Your task to perform on an android device: allow notifications from all sites in the chrome app Image 0: 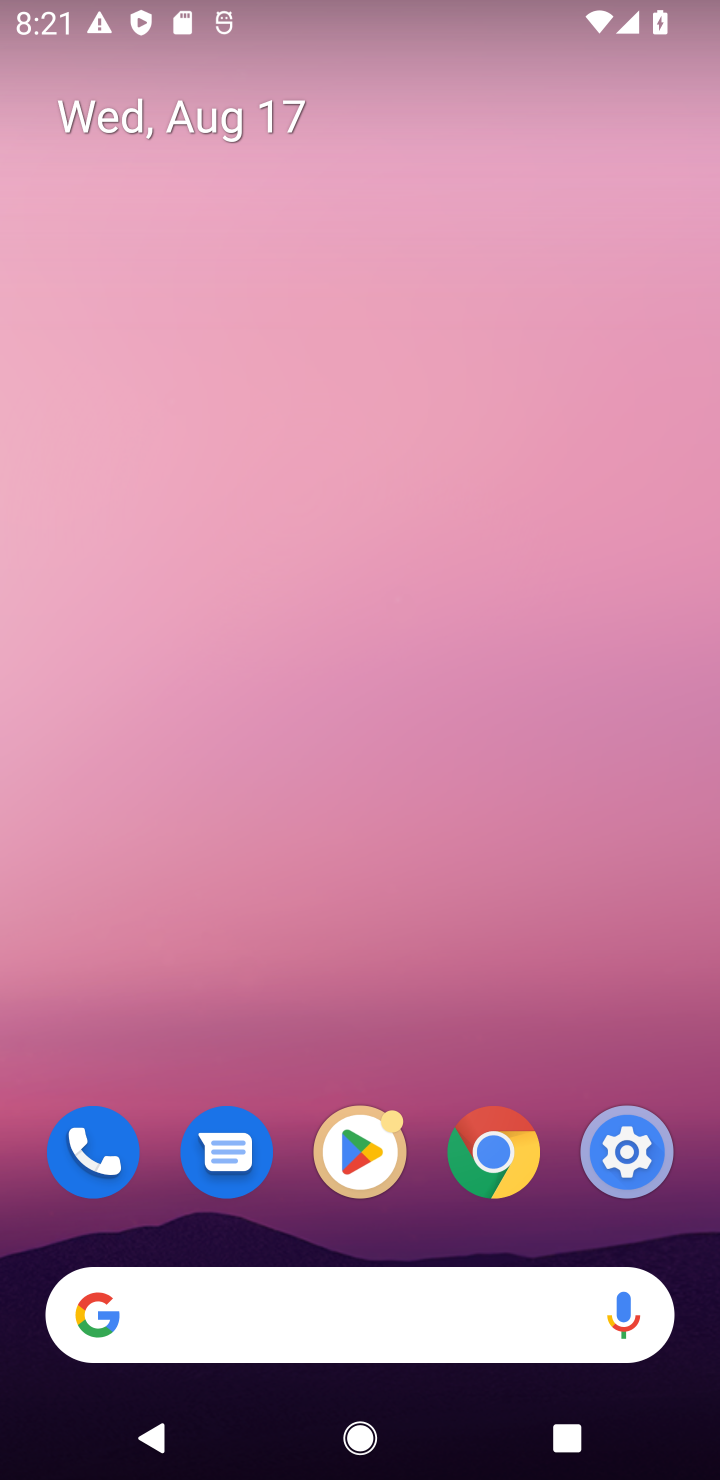
Step 0: drag from (462, 1221) to (553, 172)
Your task to perform on an android device: allow notifications from all sites in the chrome app Image 1: 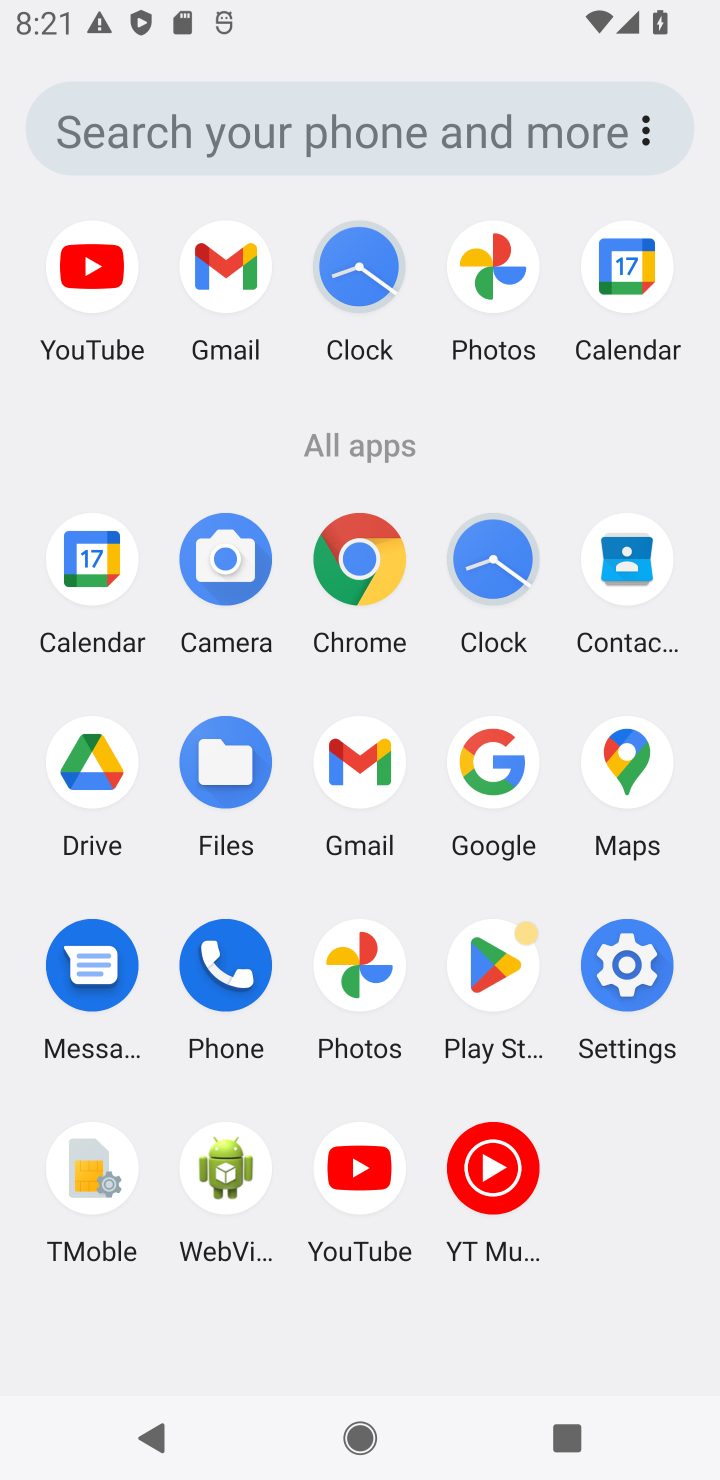
Step 1: click (368, 556)
Your task to perform on an android device: allow notifications from all sites in the chrome app Image 2: 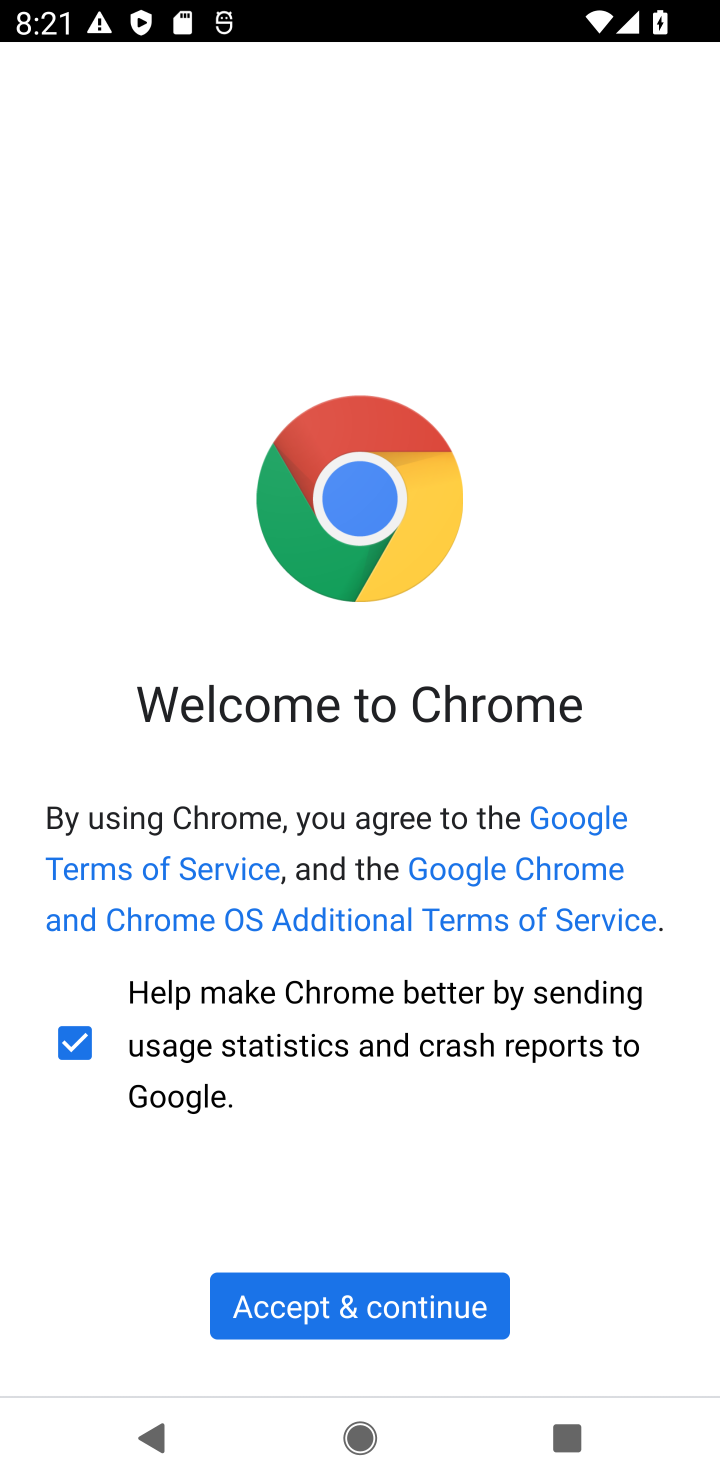
Step 2: click (371, 1320)
Your task to perform on an android device: allow notifications from all sites in the chrome app Image 3: 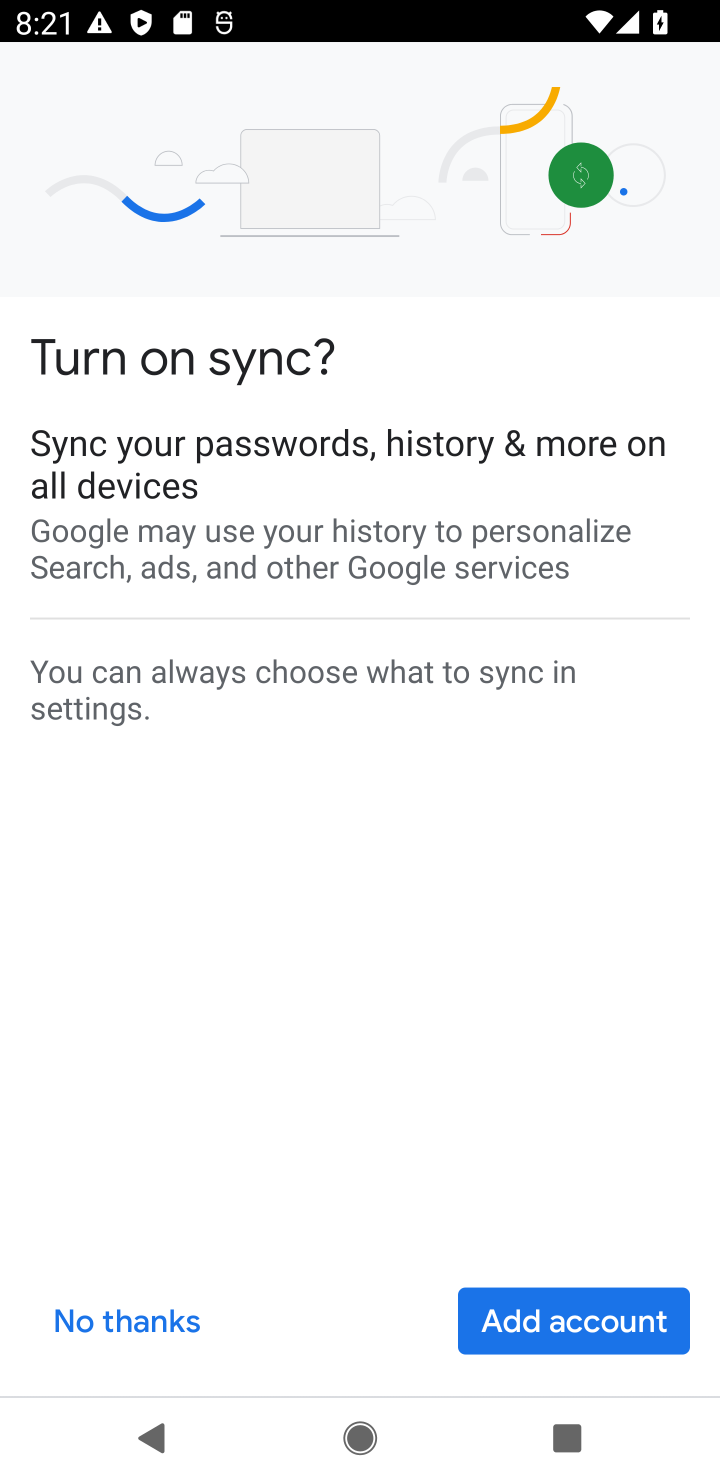
Step 3: click (159, 1306)
Your task to perform on an android device: allow notifications from all sites in the chrome app Image 4: 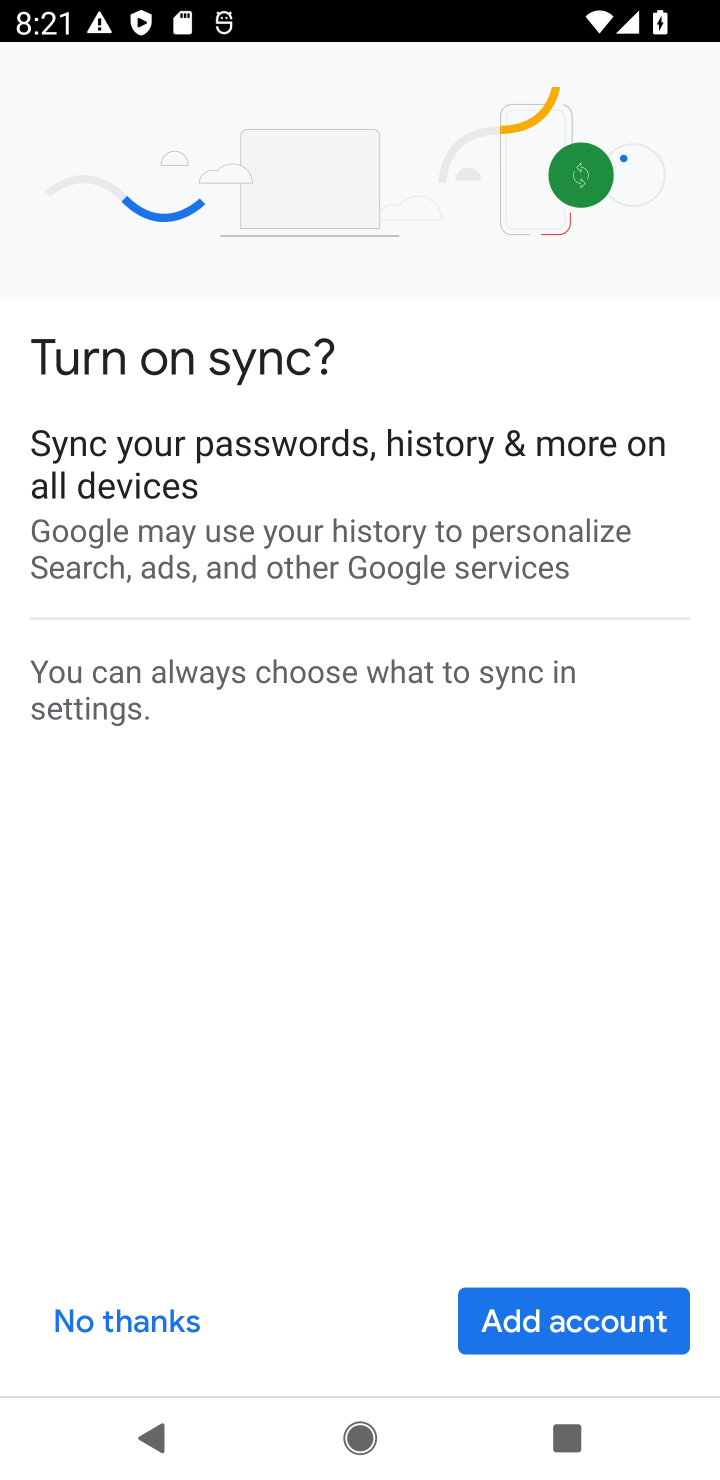
Step 4: click (109, 1306)
Your task to perform on an android device: allow notifications from all sites in the chrome app Image 5: 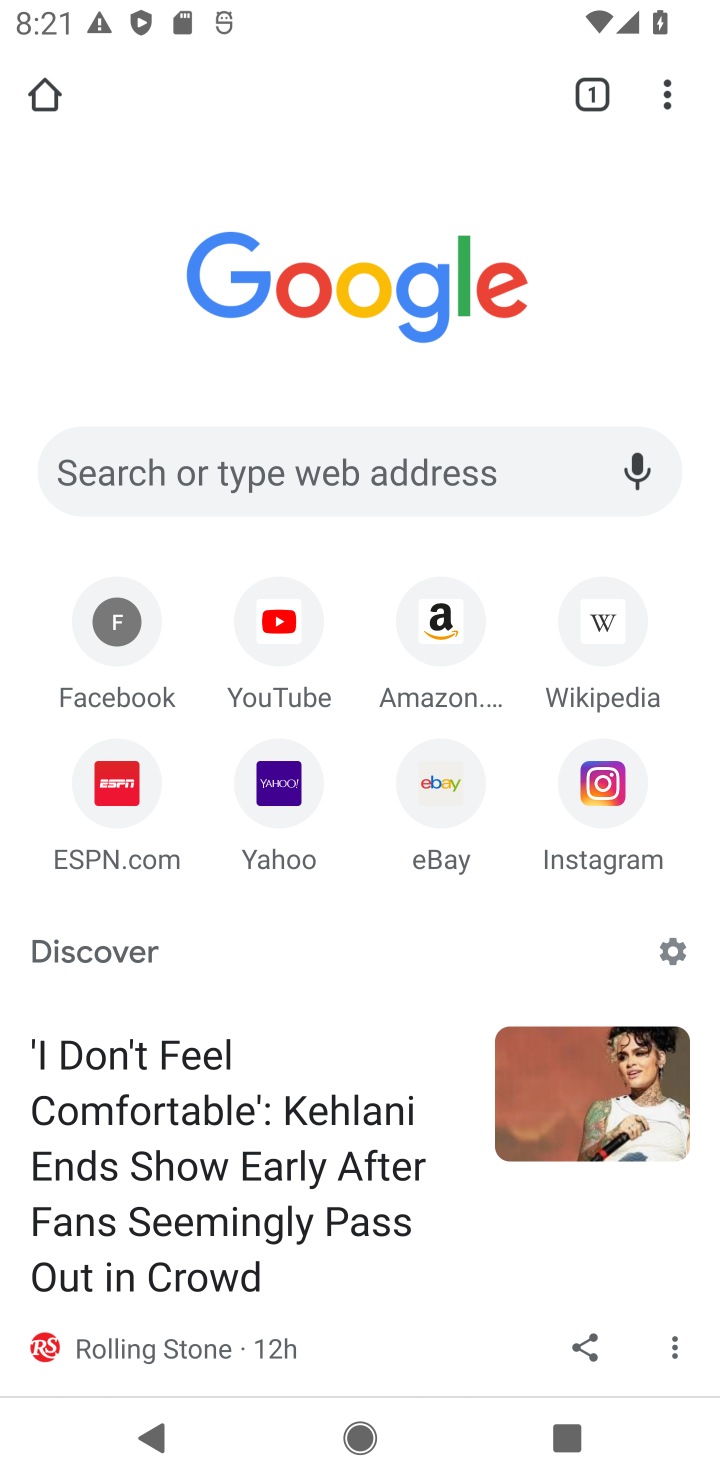
Step 5: drag from (665, 92) to (371, 890)
Your task to perform on an android device: allow notifications from all sites in the chrome app Image 6: 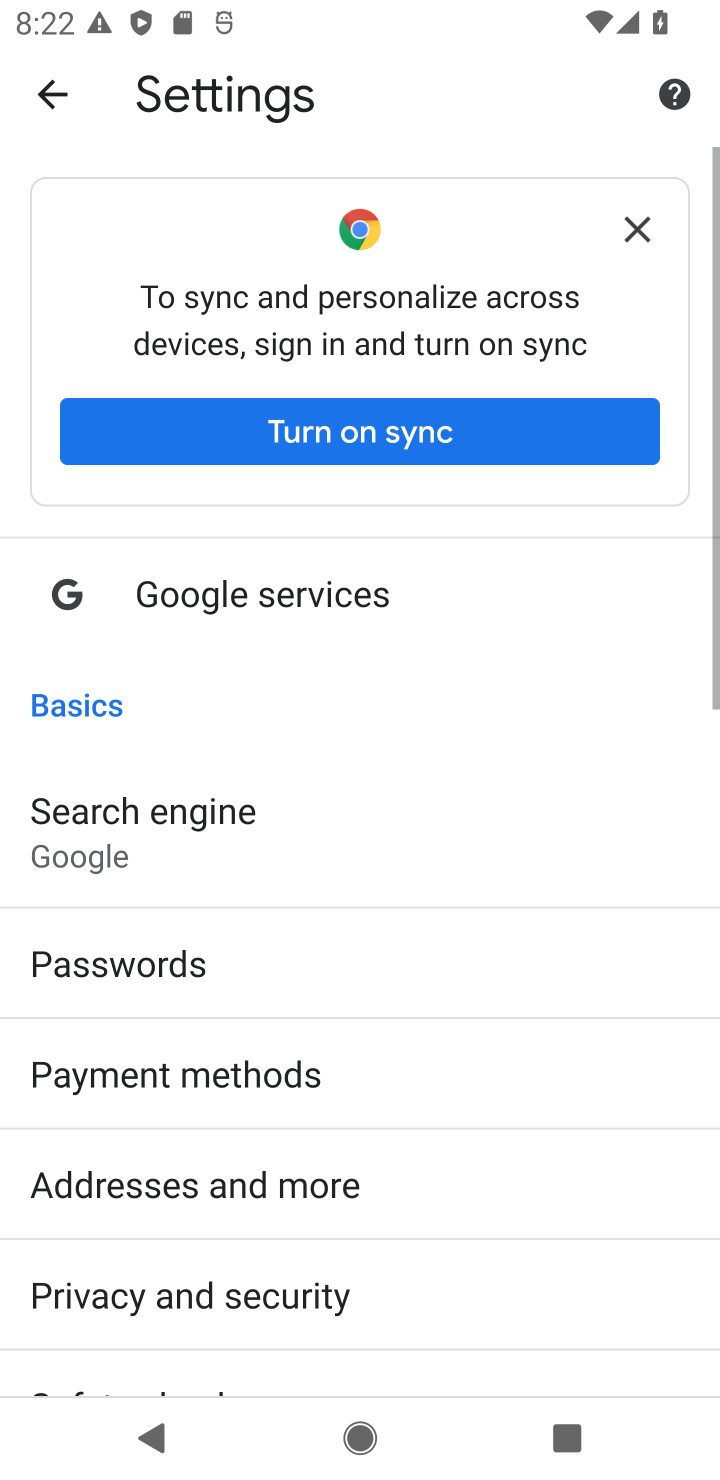
Step 6: drag from (257, 1293) to (327, 377)
Your task to perform on an android device: allow notifications from all sites in the chrome app Image 7: 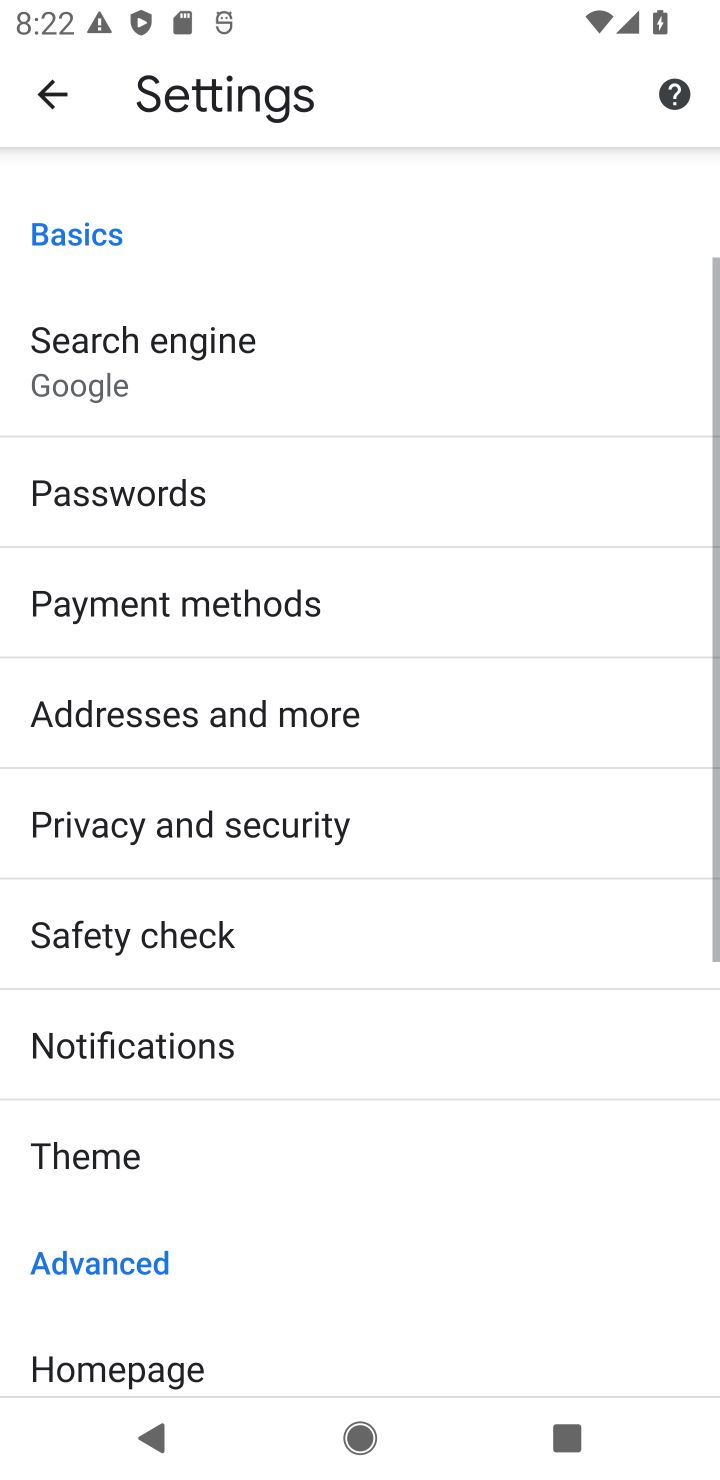
Step 7: drag from (210, 1168) to (404, 394)
Your task to perform on an android device: allow notifications from all sites in the chrome app Image 8: 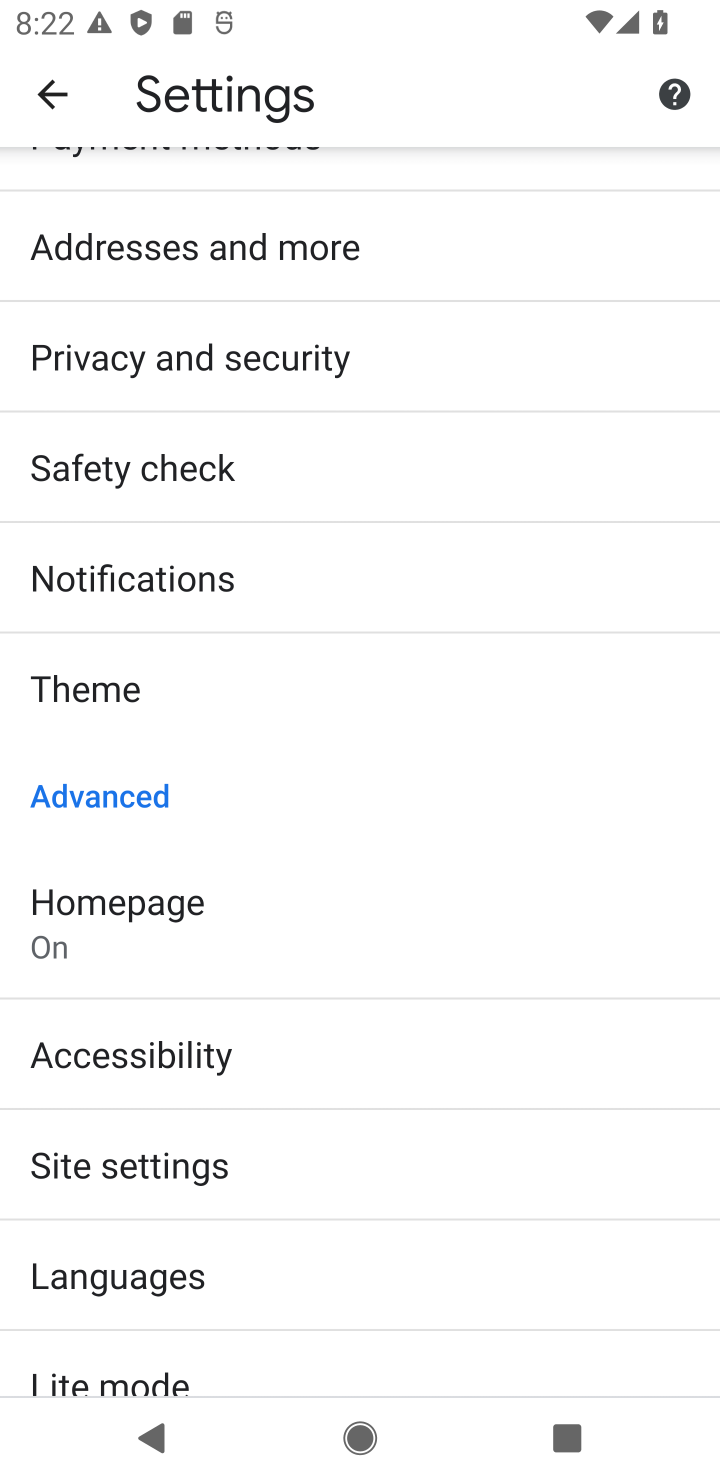
Step 8: click (89, 1138)
Your task to perform on an android device: allow notifications from all sites in the chrome app Image 9: 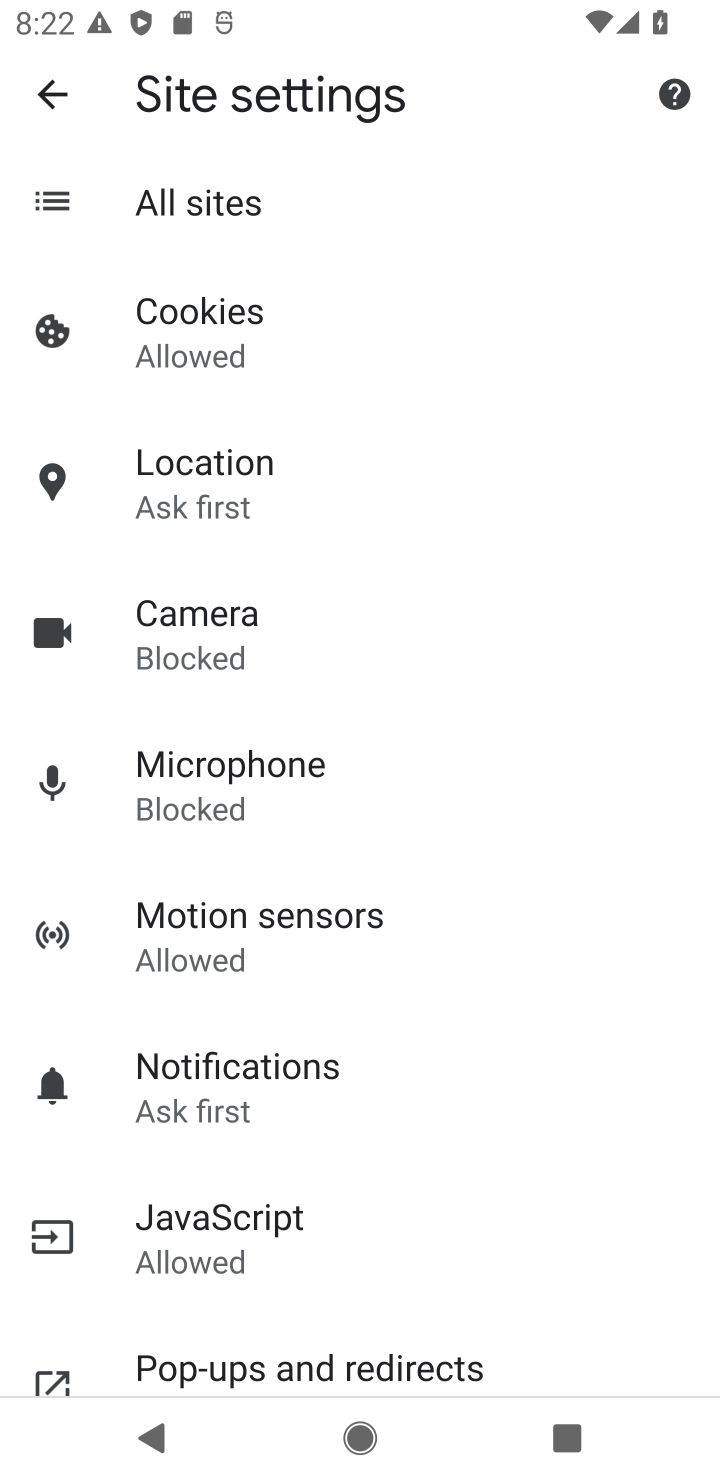
Step 9: click (294, 1090)
Your task to perform on an android device: allow notifications from all sites in the chrome app Image 10: 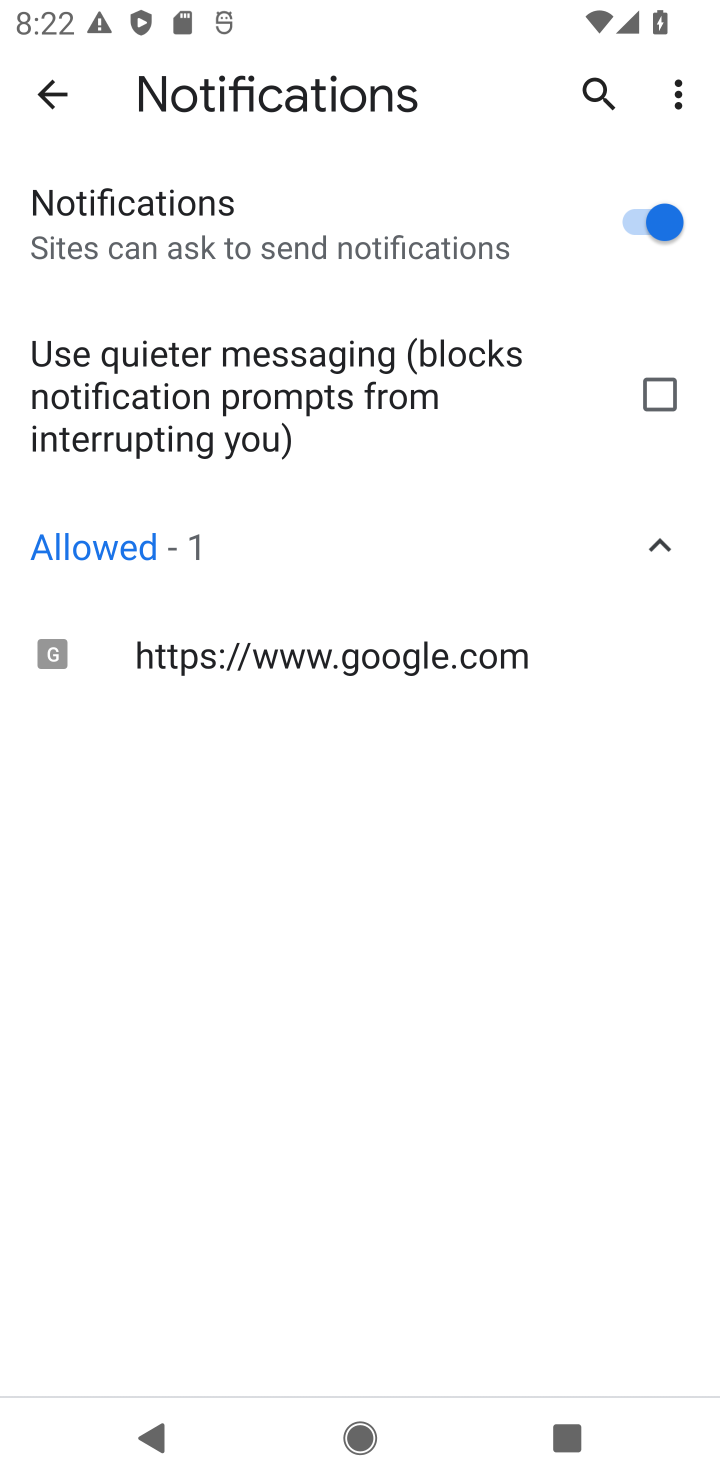
Step 10: task complete